Your task to perform on an android device: turn on wifi Image 0: 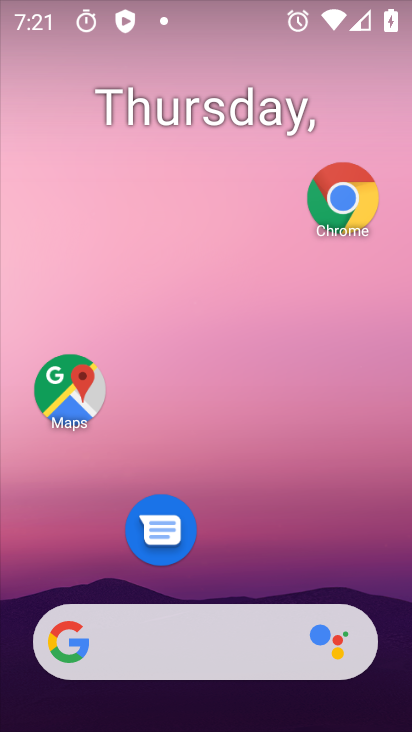
Step 0: press home button
Your task to perform on an android device: turn on wifi Image 1: 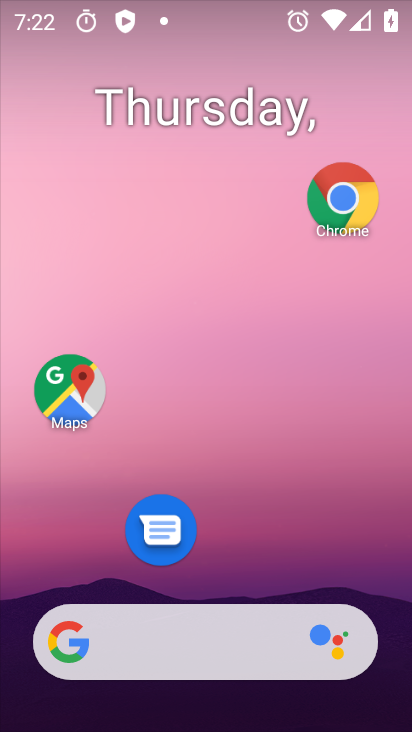
Step 1: drag from (274, 681) to (229, 188)
Your task to perform on an android device: turn on wifi Image 2: 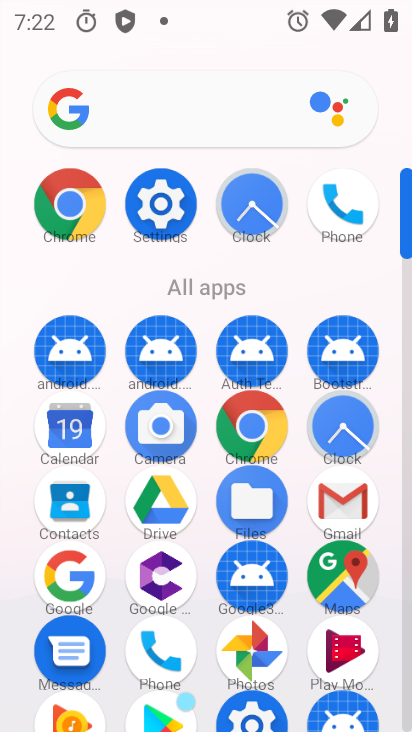
Step 2: click (168, 226)
Your task to perform on an android device: turn on wifi Image 3: 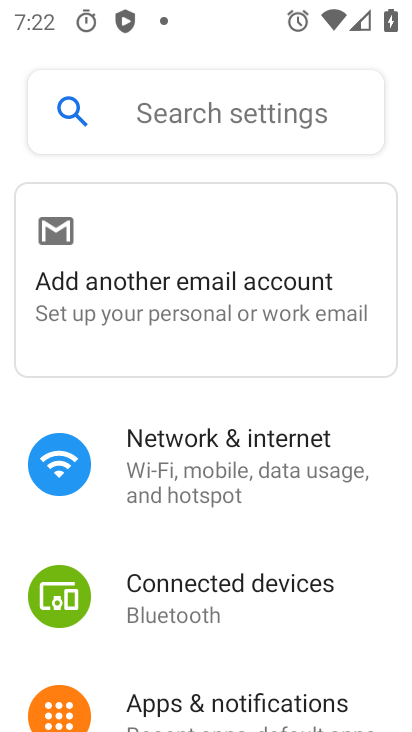
Step 3: click (258, 450)
Your task to perform on an android device: turn on wifi Image 4: 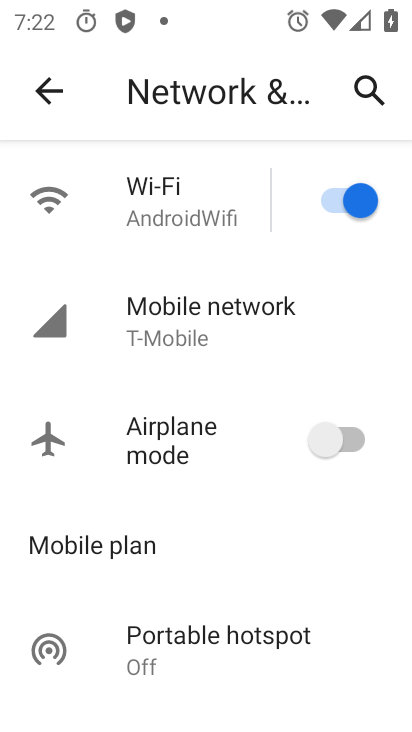
Step 4: click (177, 224)
Your task to perform on an android device: turn on wifi Image 5: 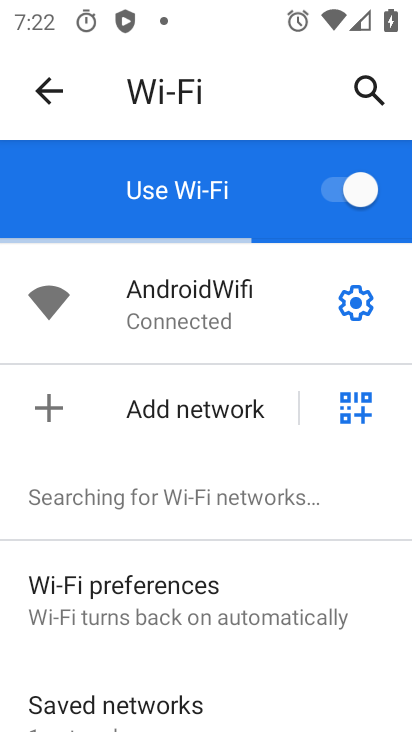
Step 5: click (350, 199)
Your task to perform on an android device: turn on wifi Image 6: 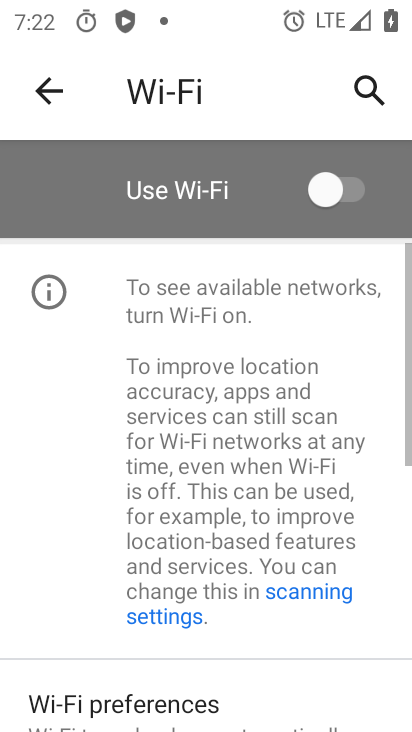
Step 6: click (350, 199)
Your task to perform on an android device: turn on wifi Image 7: 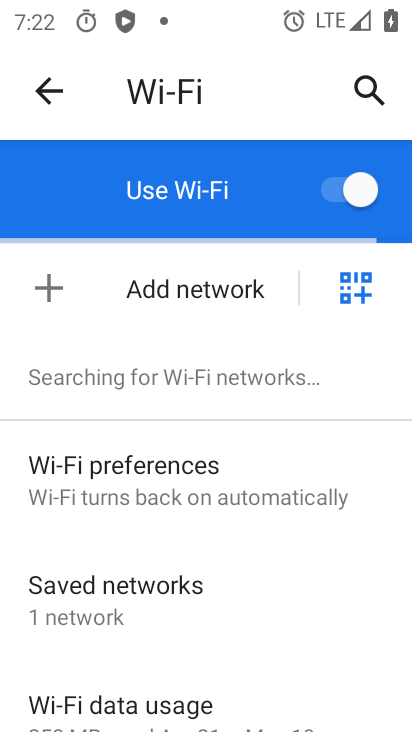
Step 7: task complete